Your task to perform on an android device: install app "Pandora - Music & Podcasts" Image 0: 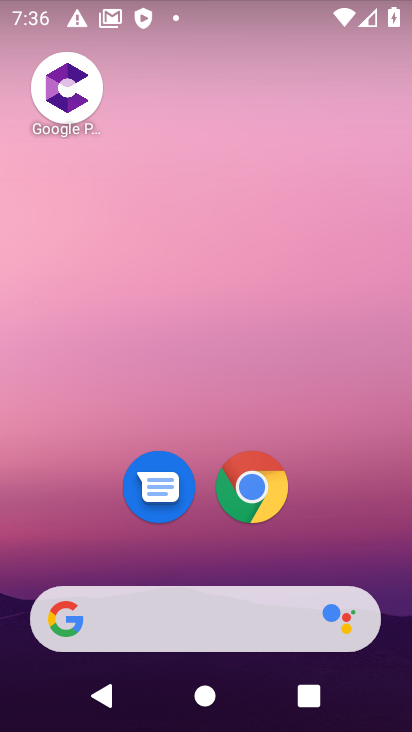
Step 0: drag from (357, 520) to (371, 88)
Your task to perform on an android device: install app "Pandora - Music & Podcasts" Image 1: 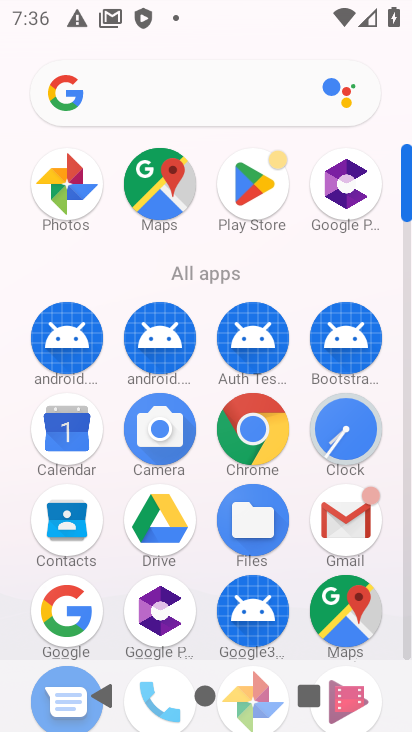
Step 1: click (262, 190)
Your task to perform on an android device: install app "Pandora - Music & Podcasts" Image 2: 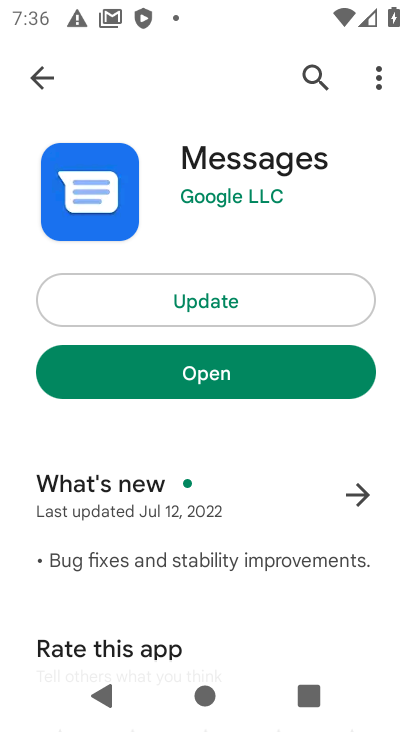
Step 2: click (318, 73)
Your task to perform on an android device: install app "Pandora - Music & Podcasts" Image 3: 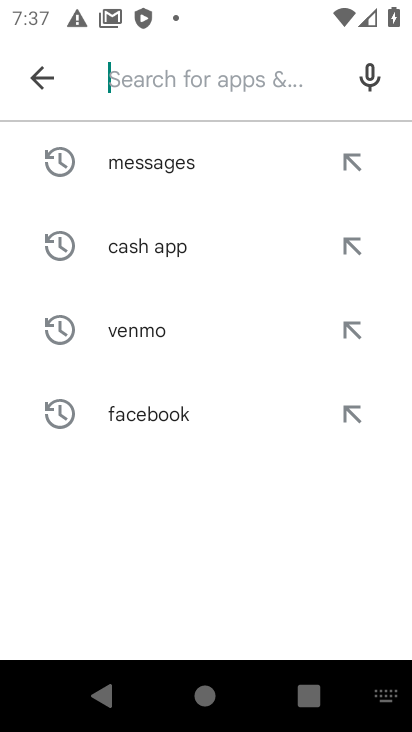
Step 3: type "Pandora - Music & Podcasts"
Your task to perform on an android device: install app "Pandora - Music & Podcasts" Image 4: 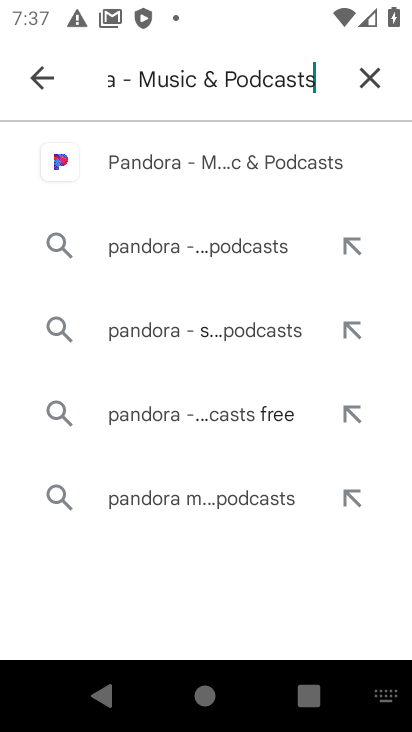
Step 4: click (257, 171)
Your task to perform on an android device: install app "Pandora - Music & Podcasts" Image 5: 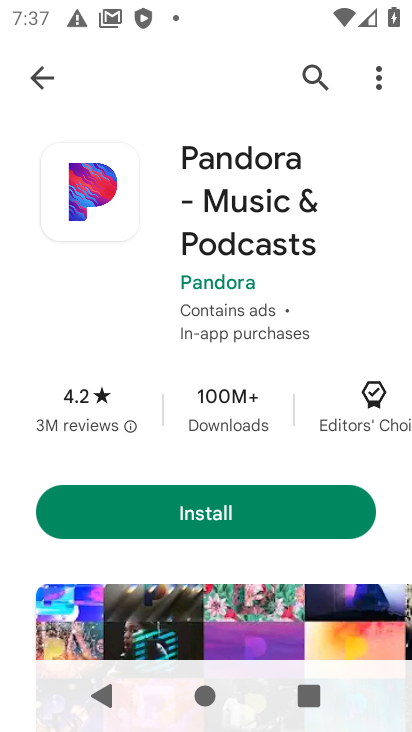
Step 5: task complete